Your task to perform on an android device: change the clock display to analog Image 0: 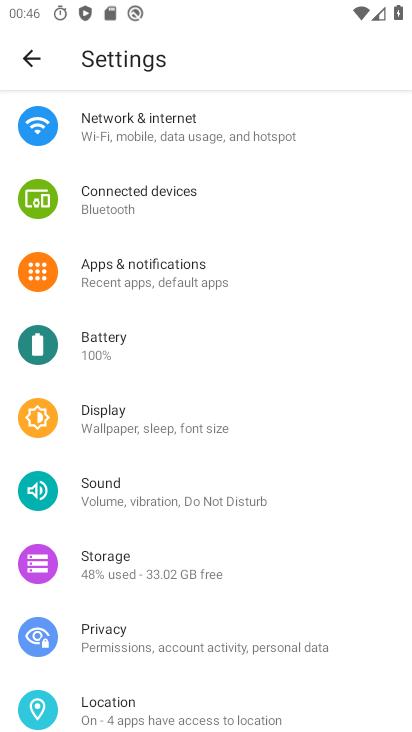
Step 0: press home button
Your task to perform on an android device: change the clock display to analog Image 1: 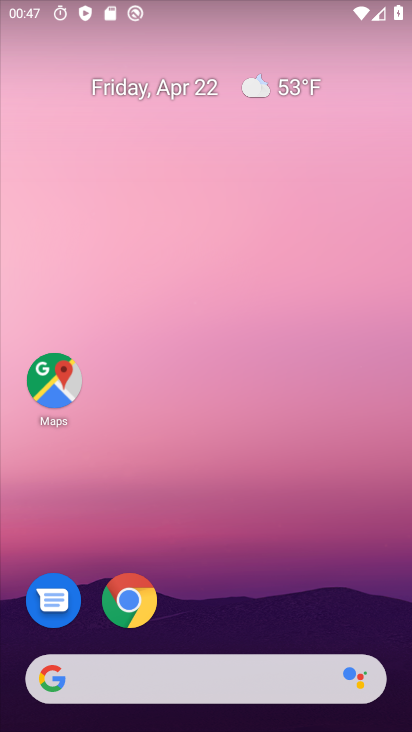
Step 1: drag from (221, 503) to (269, 117)
Your task to perform on an android device: change the clock display to analog Image 2: 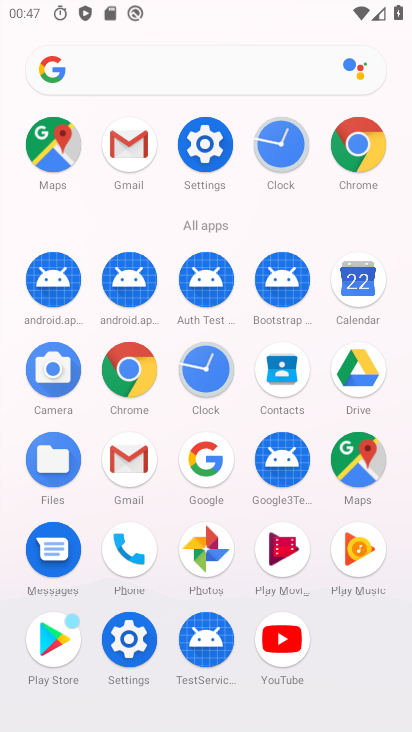
Step 2: click (282, 141)
Your task to perform on an android device: change the clock display to analog Image 3: 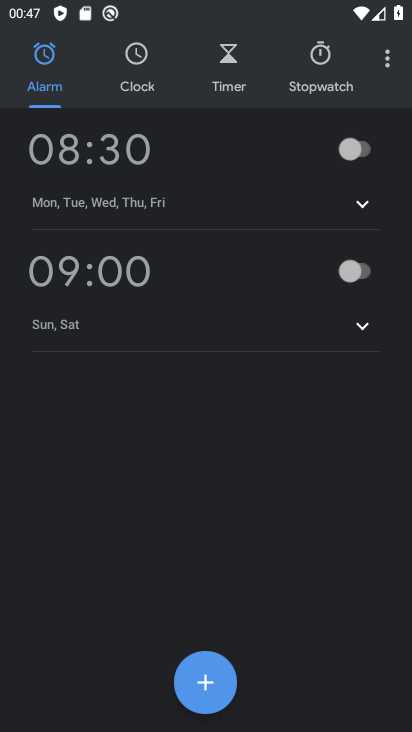
Step 3: click (392, 62)
Your task to perform on an android device: change the clock display to analog Image 4: 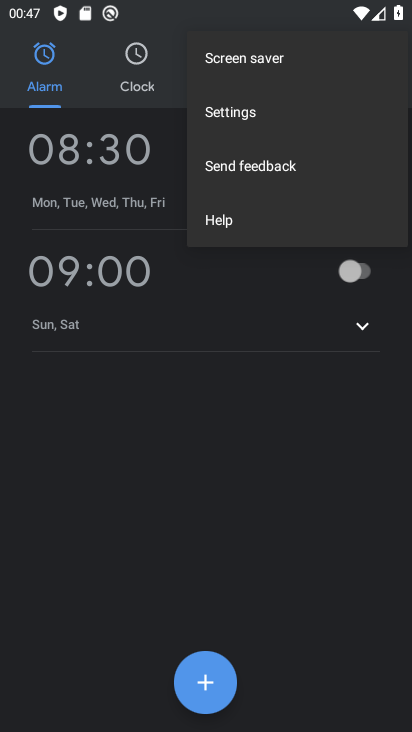
Step 4: click (237, 113)
Your task to perform on an android device: change the clock display to analog Image 5: 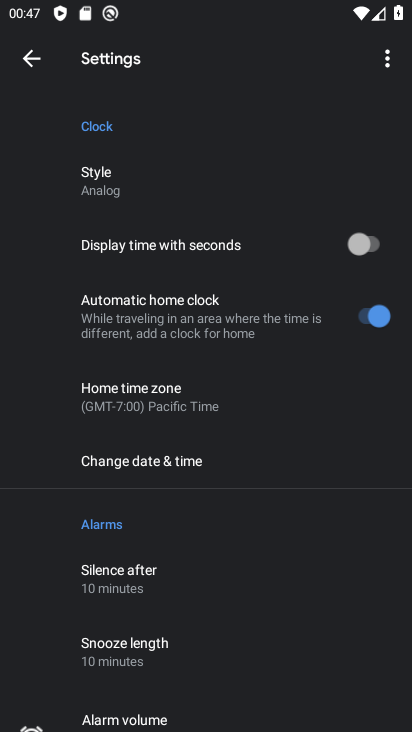
Step 5: click (126, 179)
Your task to perform on an android device: change the clock display to analog Image 6: 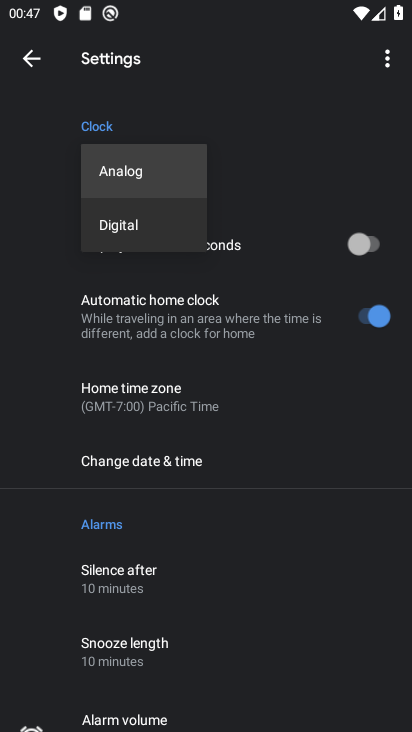
Step 6: task complete